Your task to perform on an android device: see sites visited before in the chrome app Image 0: 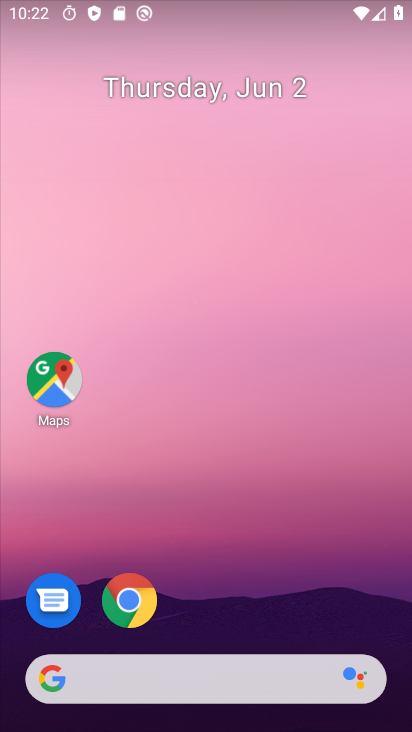
Step 0: drag from (253, 614) to (245, 105)
Your task to perform on an android device: see sites visited before in the chrome app Image 1: 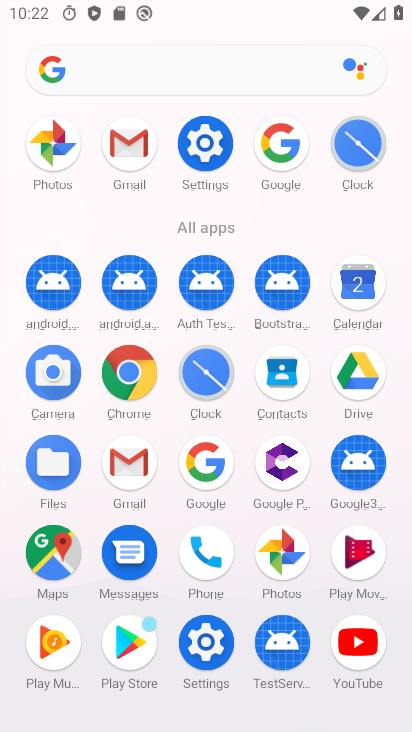
Step 1: click (128, 372)
Your task to perform on an android device: see sites visited before in the chrome app Image 2: 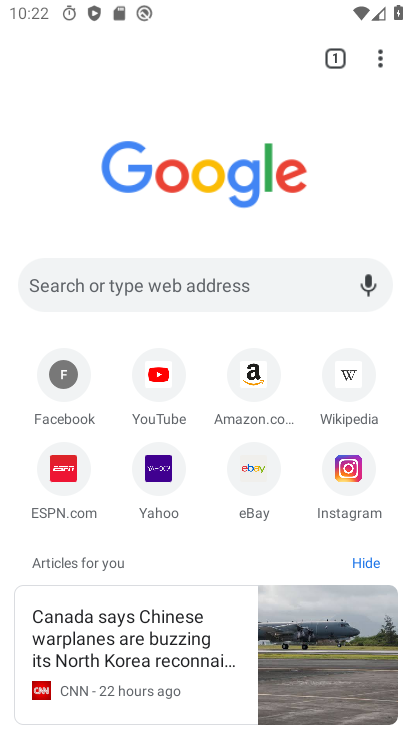
Step 2: click (371, 52)
Your task to perform on an android device: see sites visited before in the chrome app Image 3: 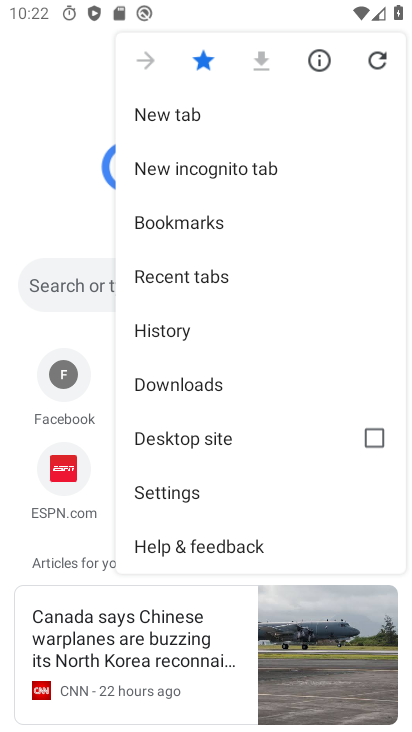
Step 3: click (200, 336)
Your task to perform on an android device: see sites visited before in the chrome app Image 4: 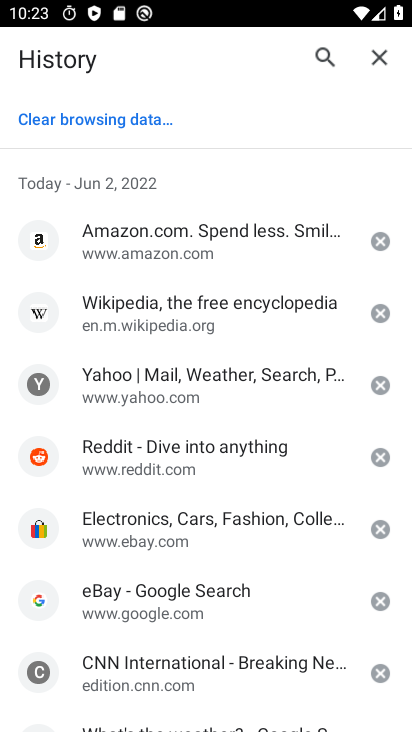
Step 4: task complete